Your task to perform on an android device: turn on priority inbox in the gmail app Image 0: 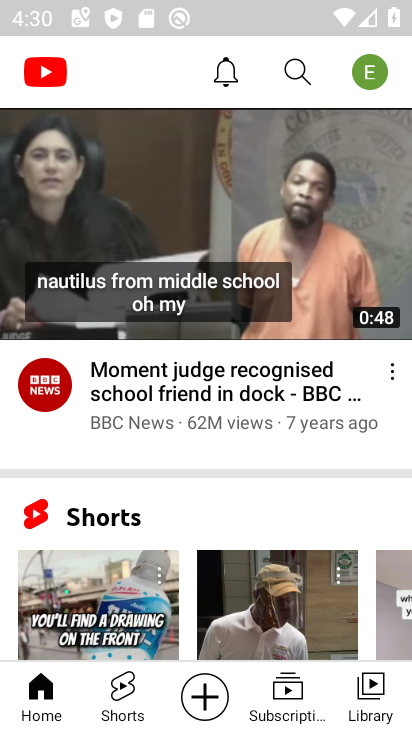
Step 0: press back button
Your task to perform on an android device: turn on priority inbox in the gmail app Image 1: 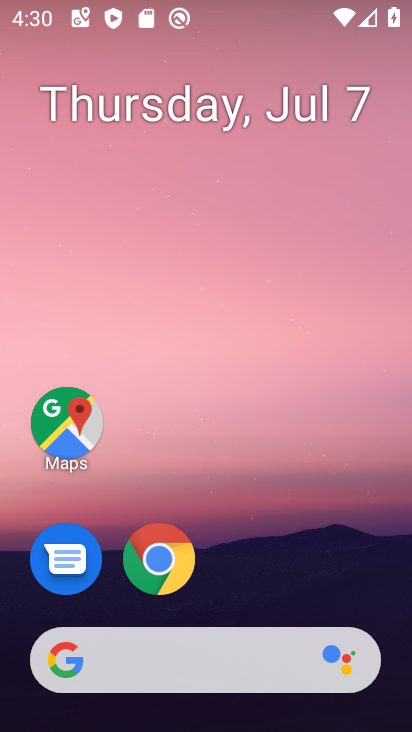
Step 1: drag from (239, 571) to (300, 63)
Your task to perform on an android device: turn on priority inbox in the gmail app Image 2: 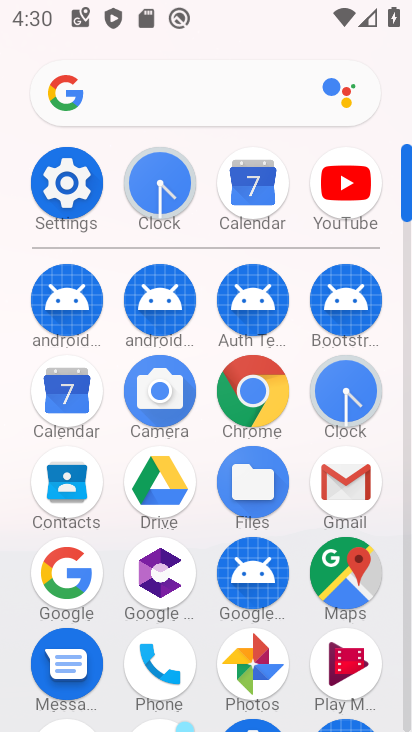
Step 2: click (342, 500)
Your task to perform on an android device: turn on priority inbox in the gmail app Image 3: 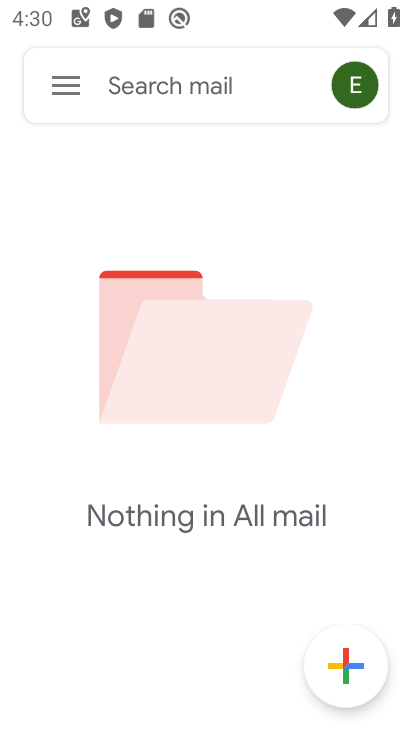
Step 3: click (61, 79)
Your task to perform on an android device: turn on priority inbox in the gmail app Image 4: 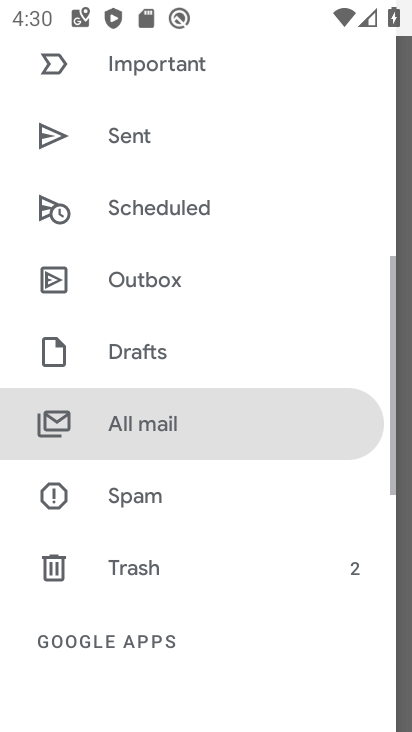
Step 4: drag from (163, 607) to (241, 22)
Your task to perform on an android device: turn on priority inbox in the gmail app Image 5: 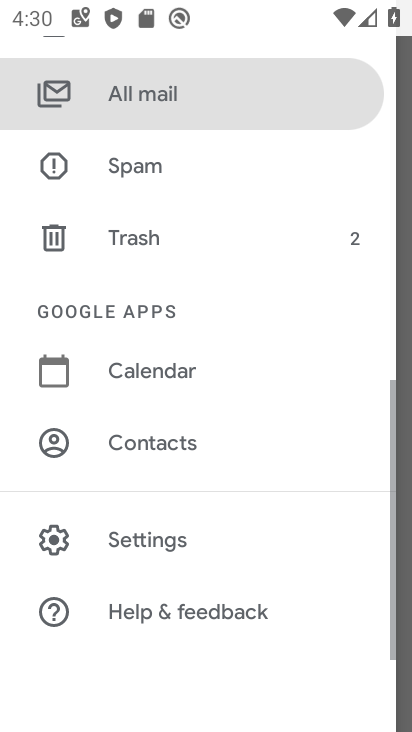
Step 5: click (166, 527)
Your task to perform on an android device: turn on priority inbox in the gmail app Image 6: 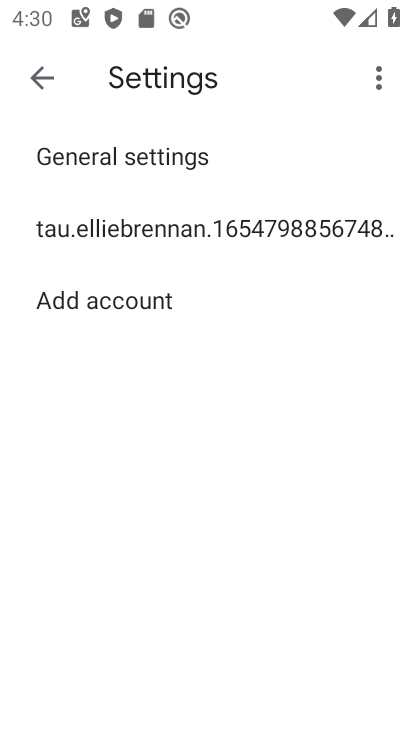
Step 6: click (139, 223)
Your task to perform on an android device: turn on priority inbox in the gmail app Image 7: 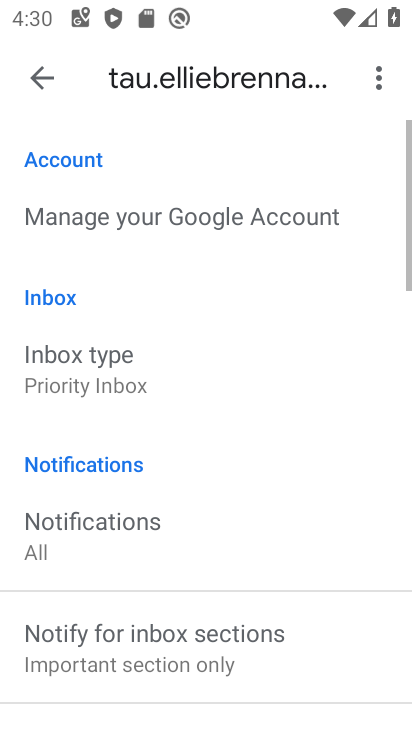
Step 7: click (32, 364)
Your task to perform on an android device: turn on priority inbox in the gmail app Image 8: 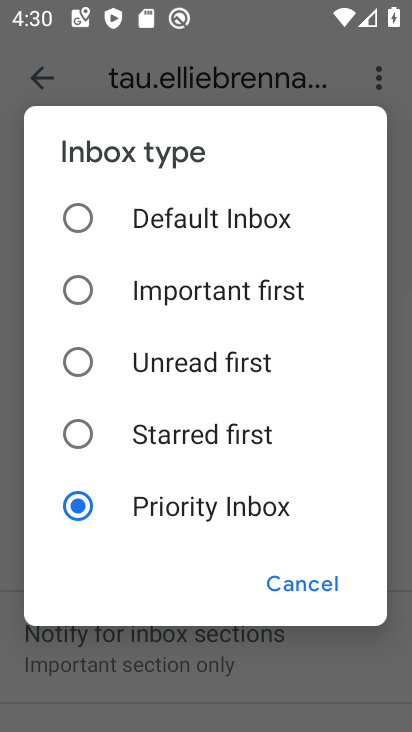
Step 8: task complete